Your task to perform on an android device: Is it going to rain tomorrow? Image 0: 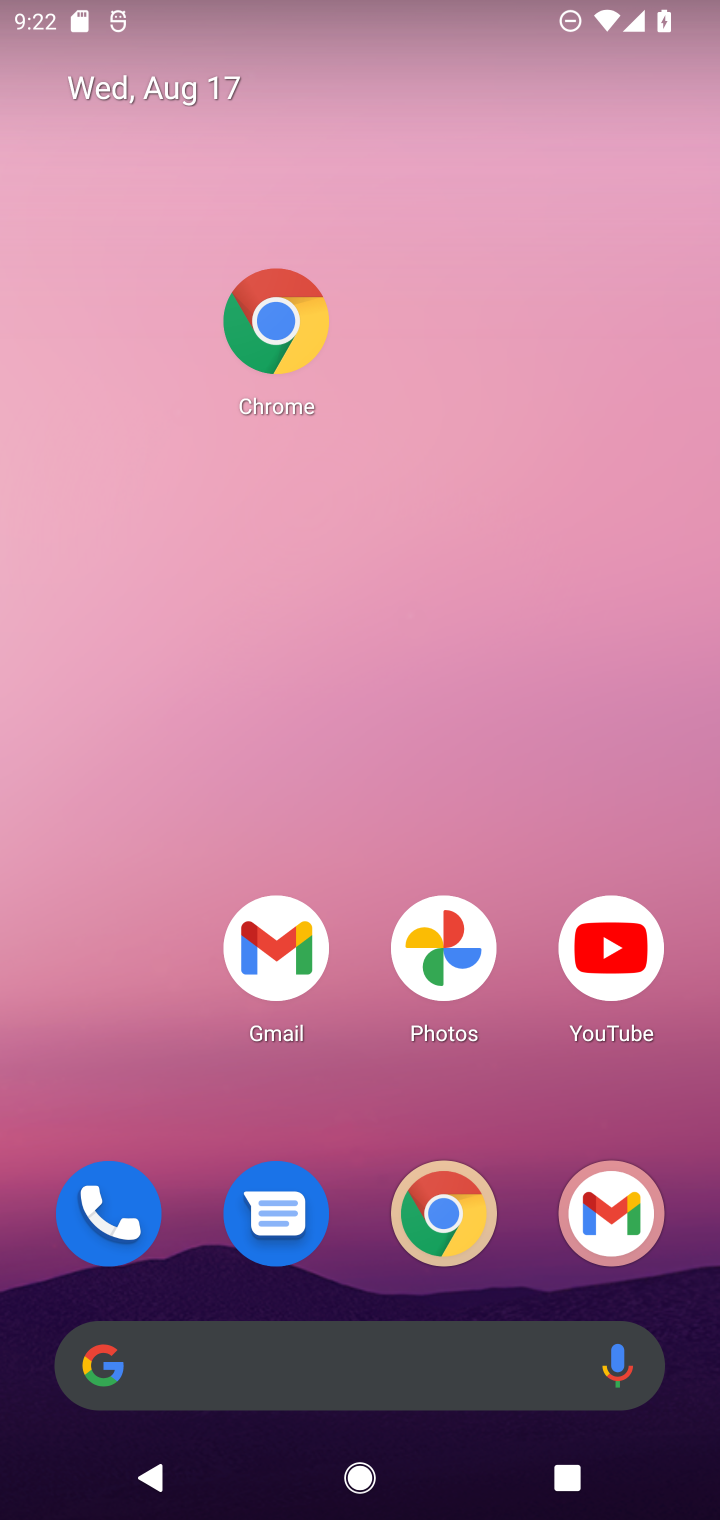
Step 0: drag from (383, 1287) to (399, 354)
Your task to perform on an android device: Is it going to rain tomorrow? Image 1: 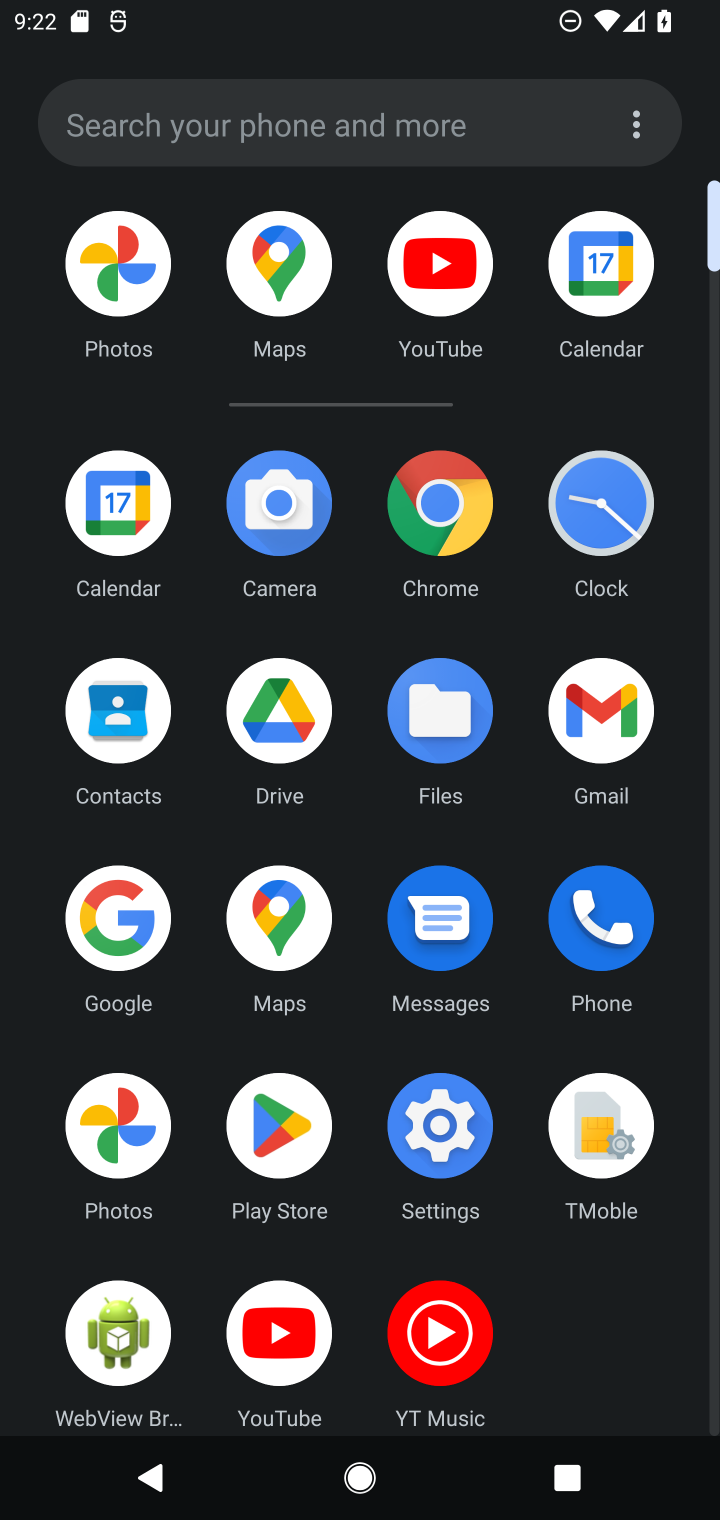
Step 1: click (401, 113)
Your task to perform on an android device: Is it going to rain tomorrow? Image 2: 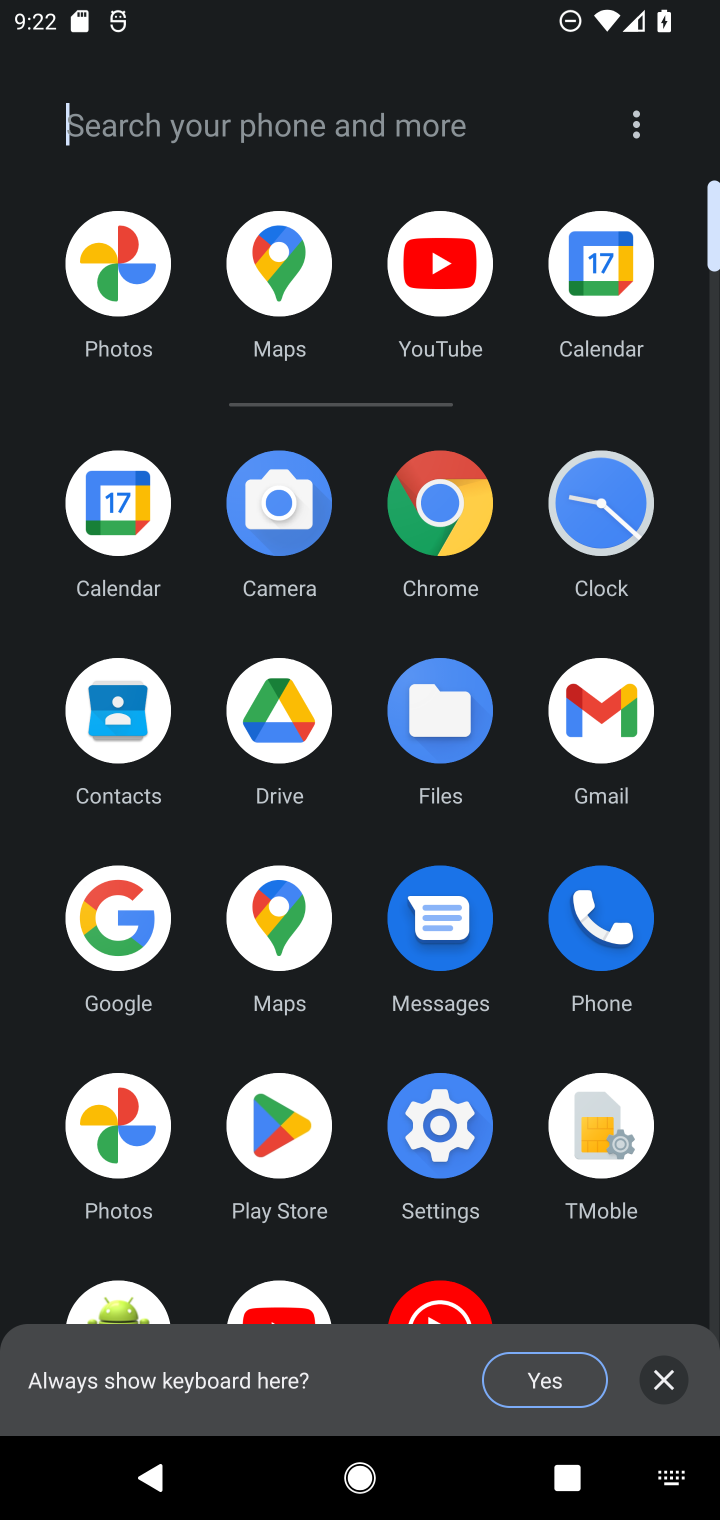
Step 2: click (571, 1388)
Your task to perform on an android device: Is it going to rain tomorrow? Image 3: 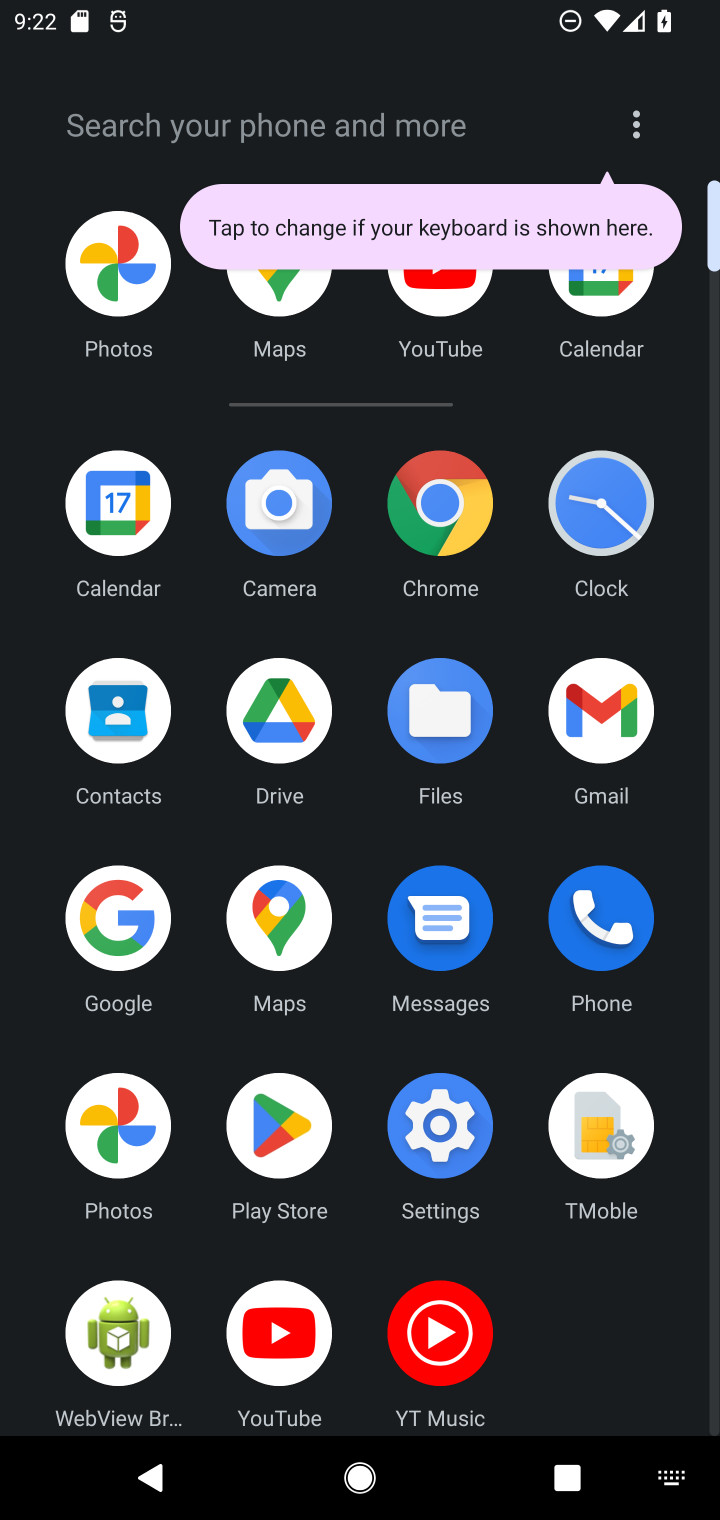
Step 3: click (252, 134)
Your task to perform on an android device: Is it going to rain tomorrow? Image 4: 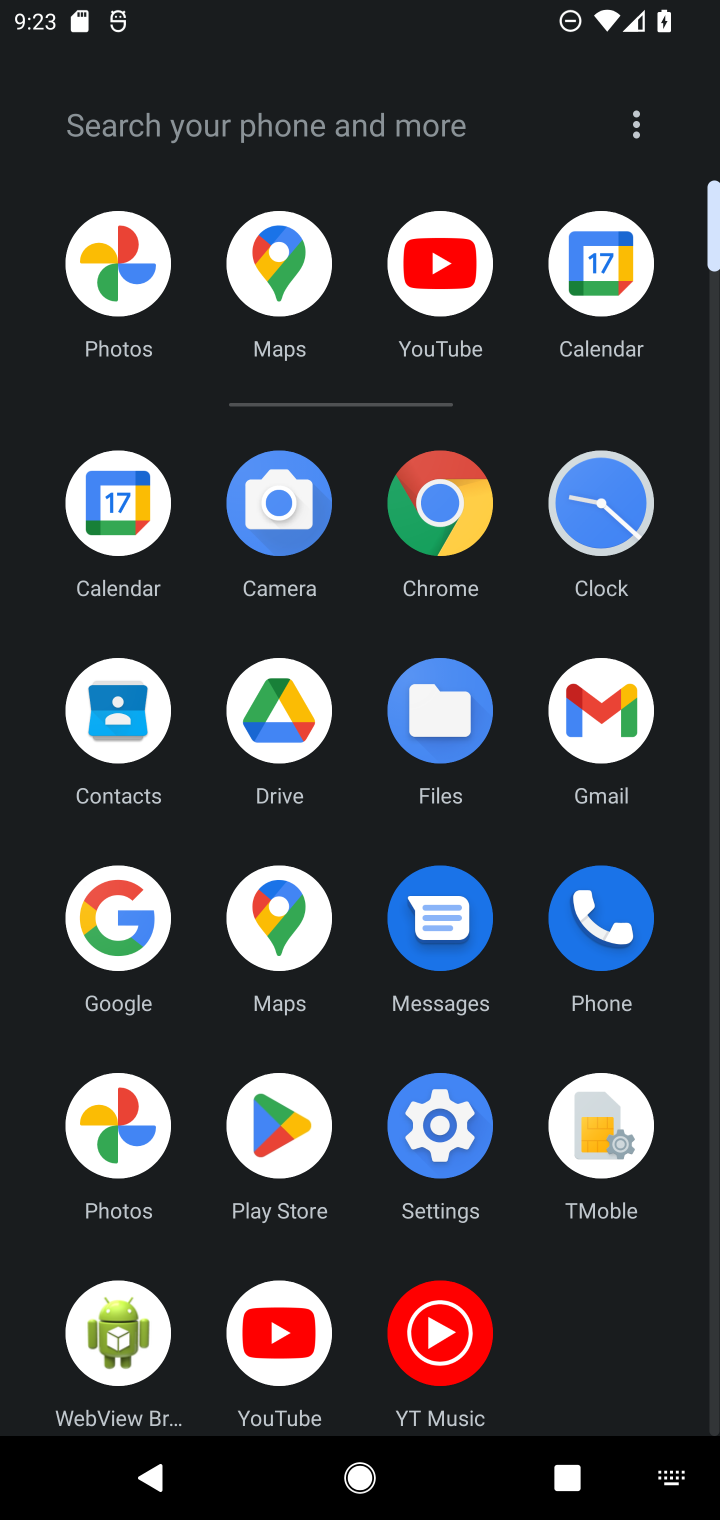
Step 4: type "weather"
Your task to perform on an android device: Is it going to rain tomorrow? Image 5: 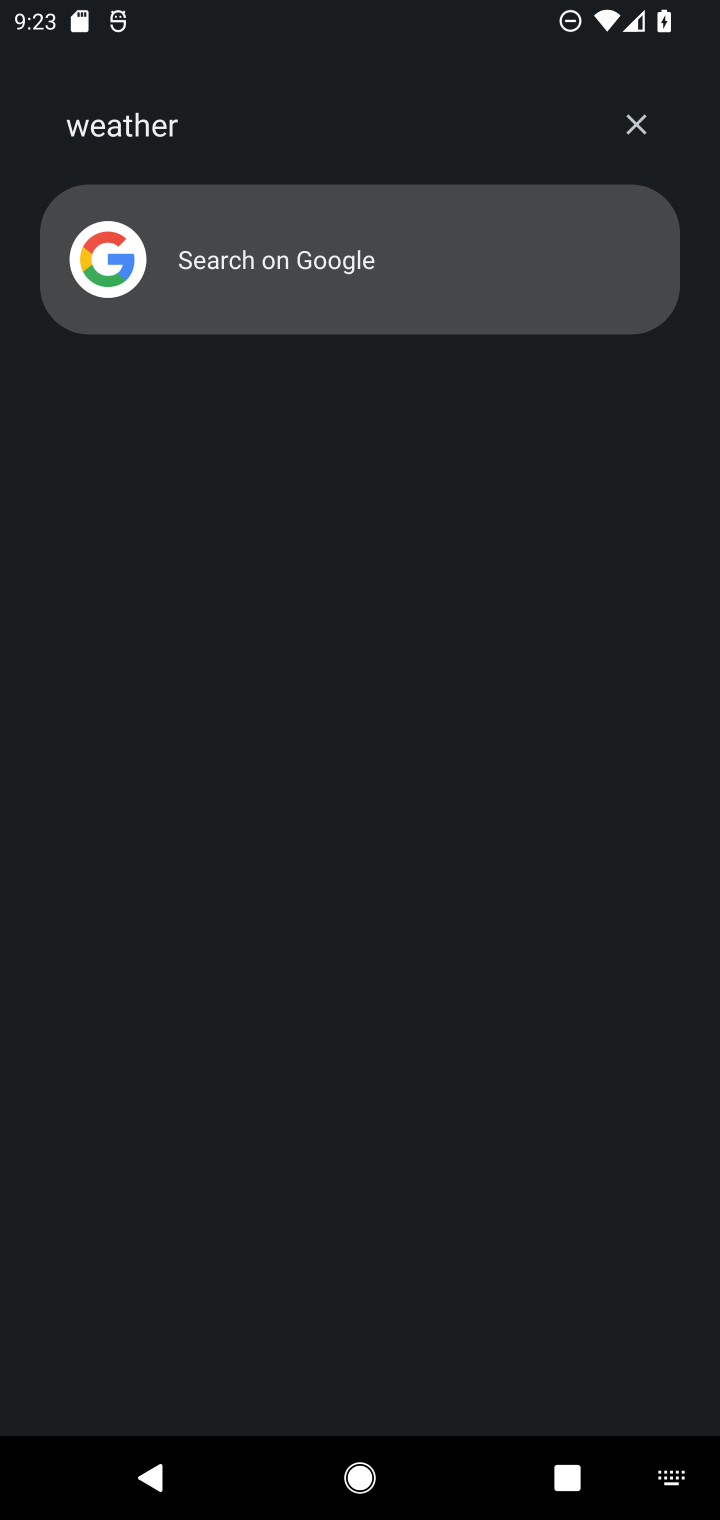
Step 5: click (289, 254)
Your task to perform on an android device: Is it going to rain tomorrow? Image 6: 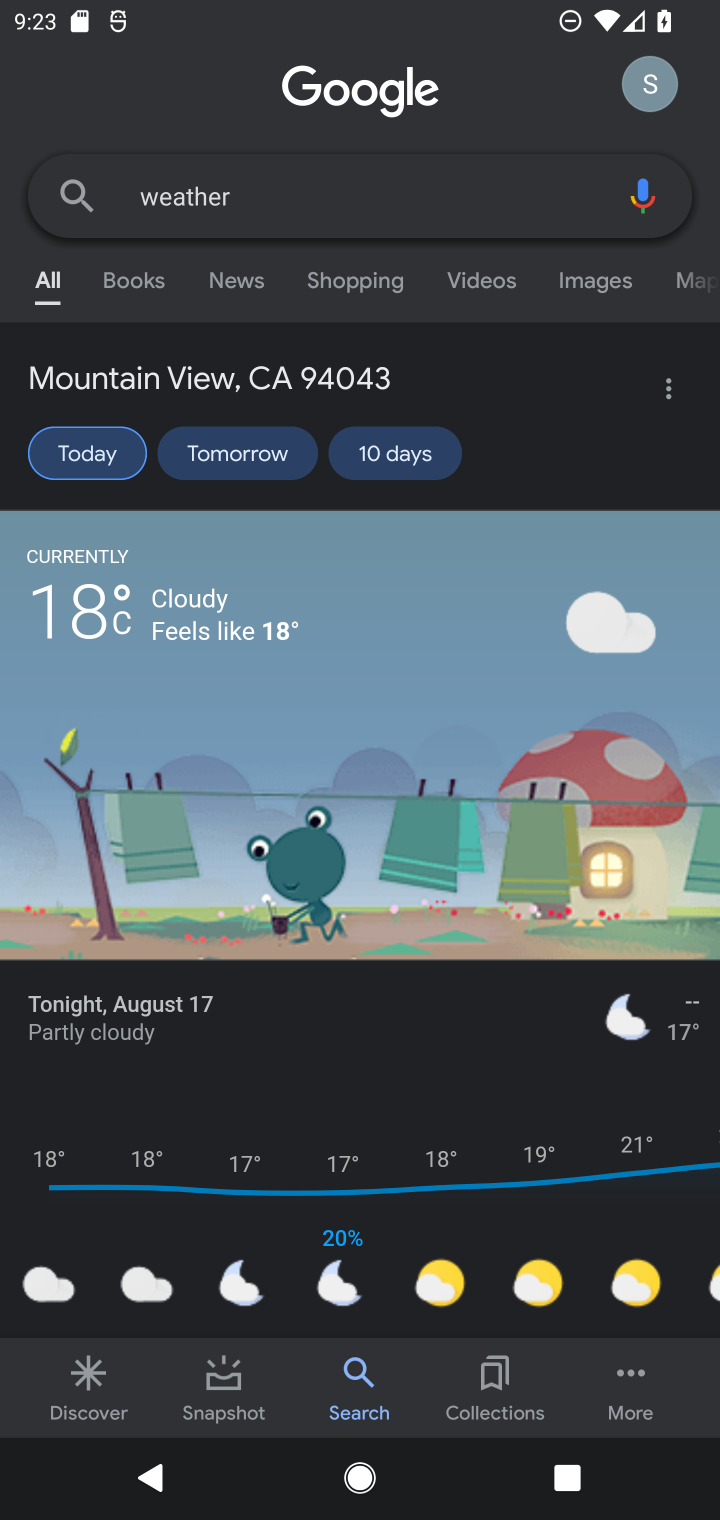
Step 6: task complete